Your task to perform on an android device: Toggle the flashlight Image 0: 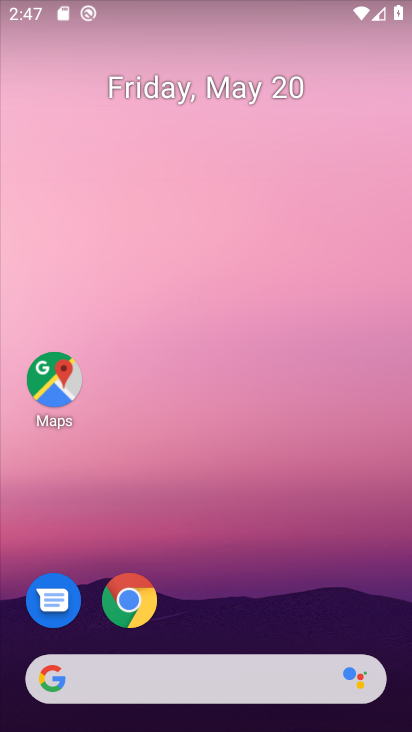
Step 0: drag from (277, 0) to (247, 413)
Your task to perform on an android device: Toggle the flashlight Image 1: 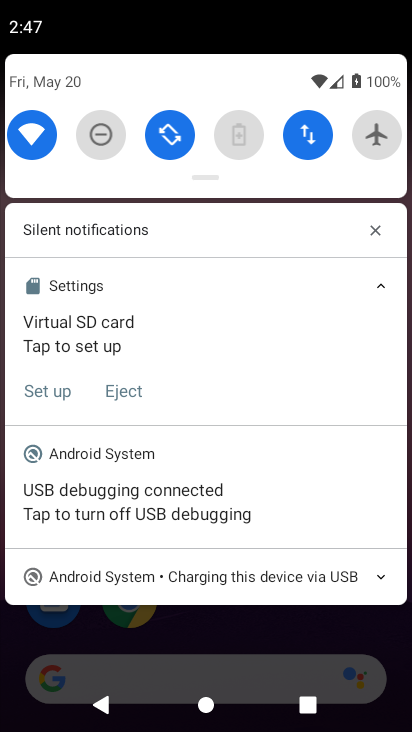
Step 1: drag from (198, 77) to (203, 388)
Your task to perform on an android device: Toggle the flashlight Image 2: 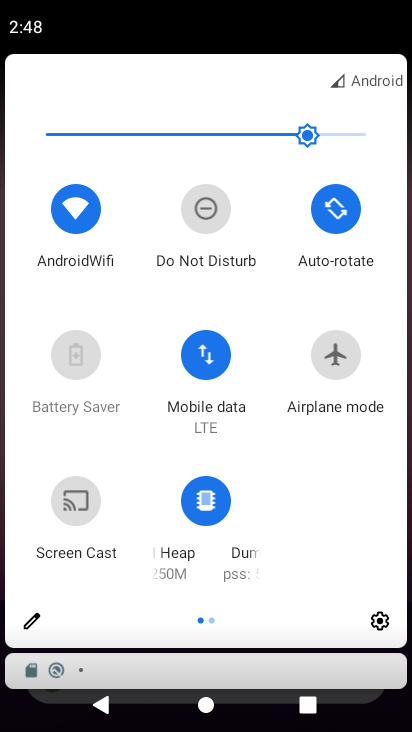
Step 2: click (34, 630)
Your task to perform on an android device: Toggle the flashlight Image 3: 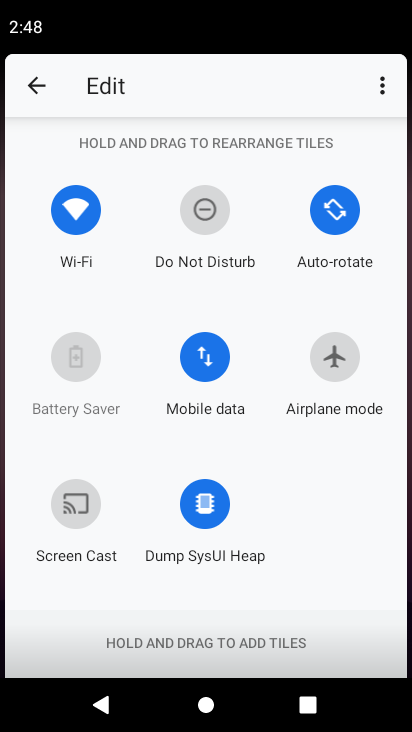
Step 3: task complete